Your task to perform on an android device: Search for Mexican restaurants on Maps Image 0: 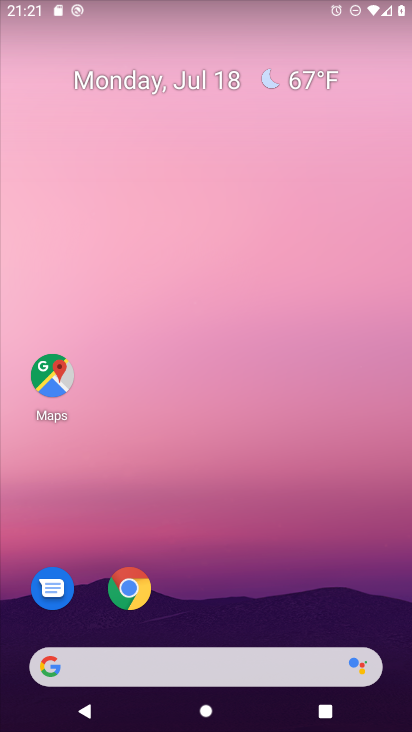
Step 0: click (51, 376)
Your task to perform on an android device: Search for Mexican restaurants on Maps Image 1: 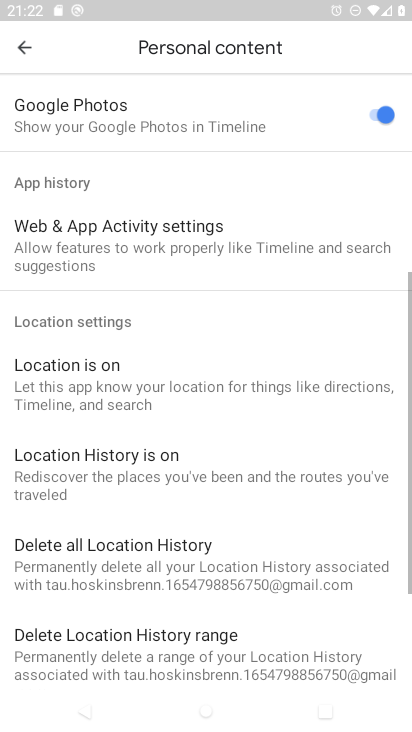
Step 1: press back button
Your task to perform on an android device: Search for Mexican restaurants on Maps Image 2: 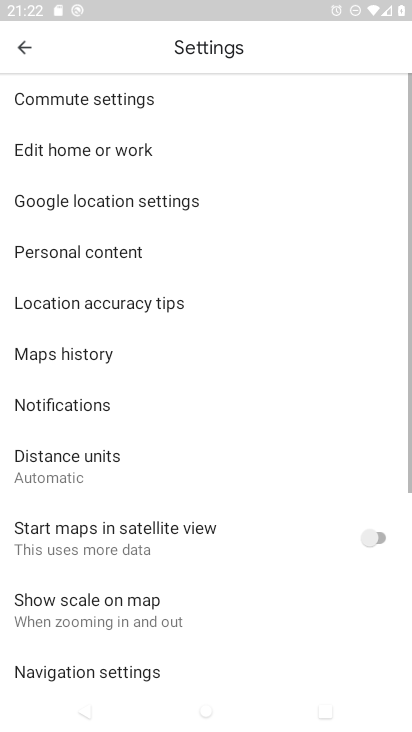
Step 2: press back button
Your task to perform on an android device: Search for Mexican restaurants on Maps Image 3: 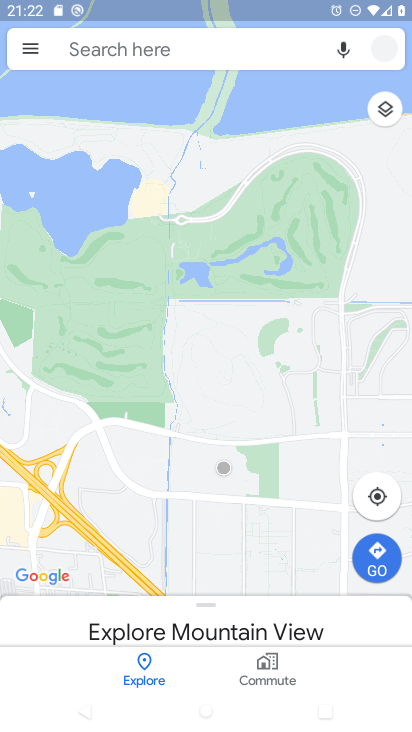
Step 3: press back button
Your task to perform on an android device: Search for Mexican restaurants on Maps Image 4: 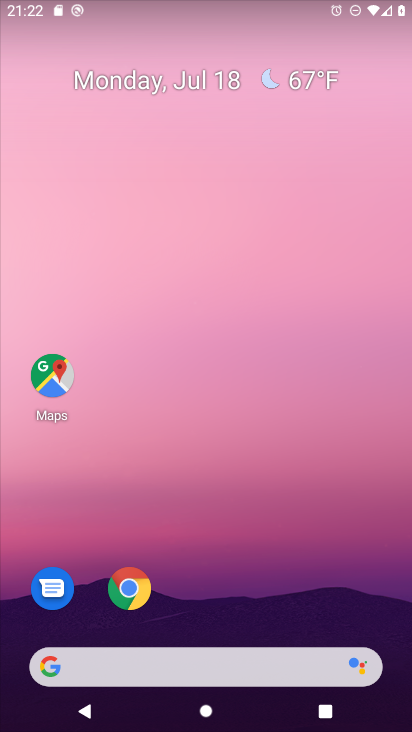
Step 4: click (54, 371)
Your task to perform on an android device: Search for Mexican restaurants on Maps Image 5: 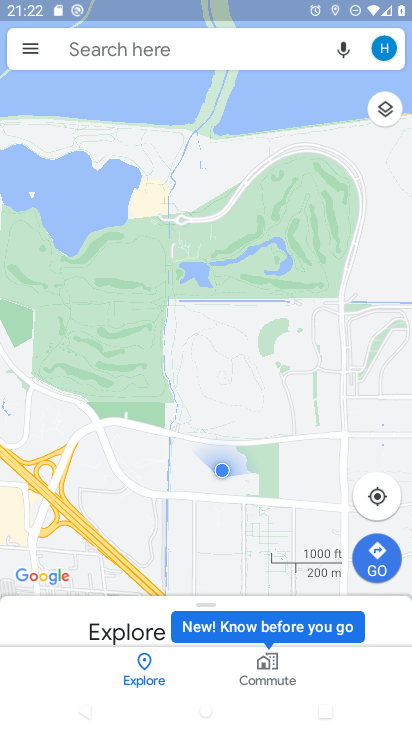
Step 5: click (103, 50)
Your task to perform on an android device: Search for Mexican restaurants on Maps Image 6: 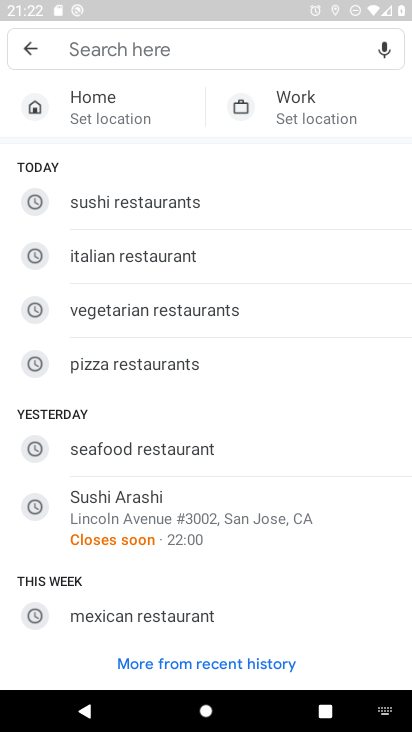
Step 6: type "Mexican restaurants"
Your task to perform on an android device: Search for Mexican restaurants on Maps Image 7: 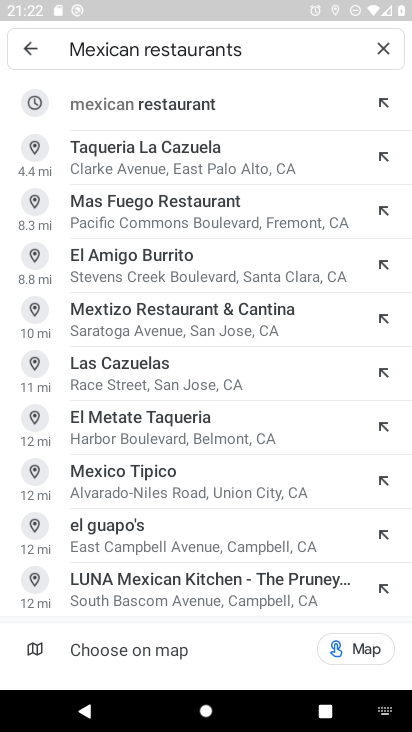
Step 7: click (121, 112)
Your task to perform on an android device: Search for Mexican restaurants on Maps Image 8: 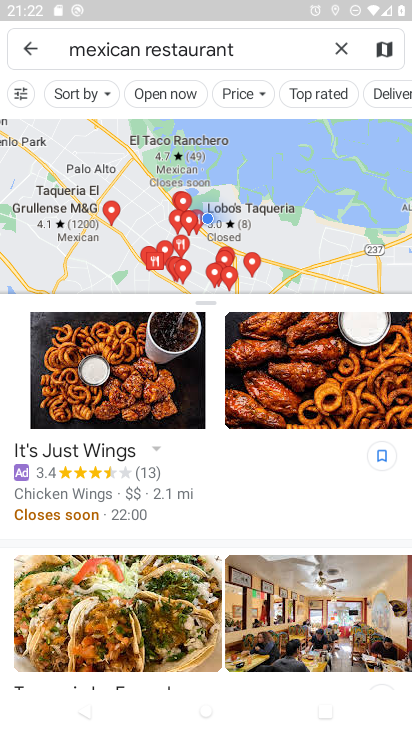
Step 8: task complete